Your task to perform on an android device: make emails show in primary in the gmail app Image 0: 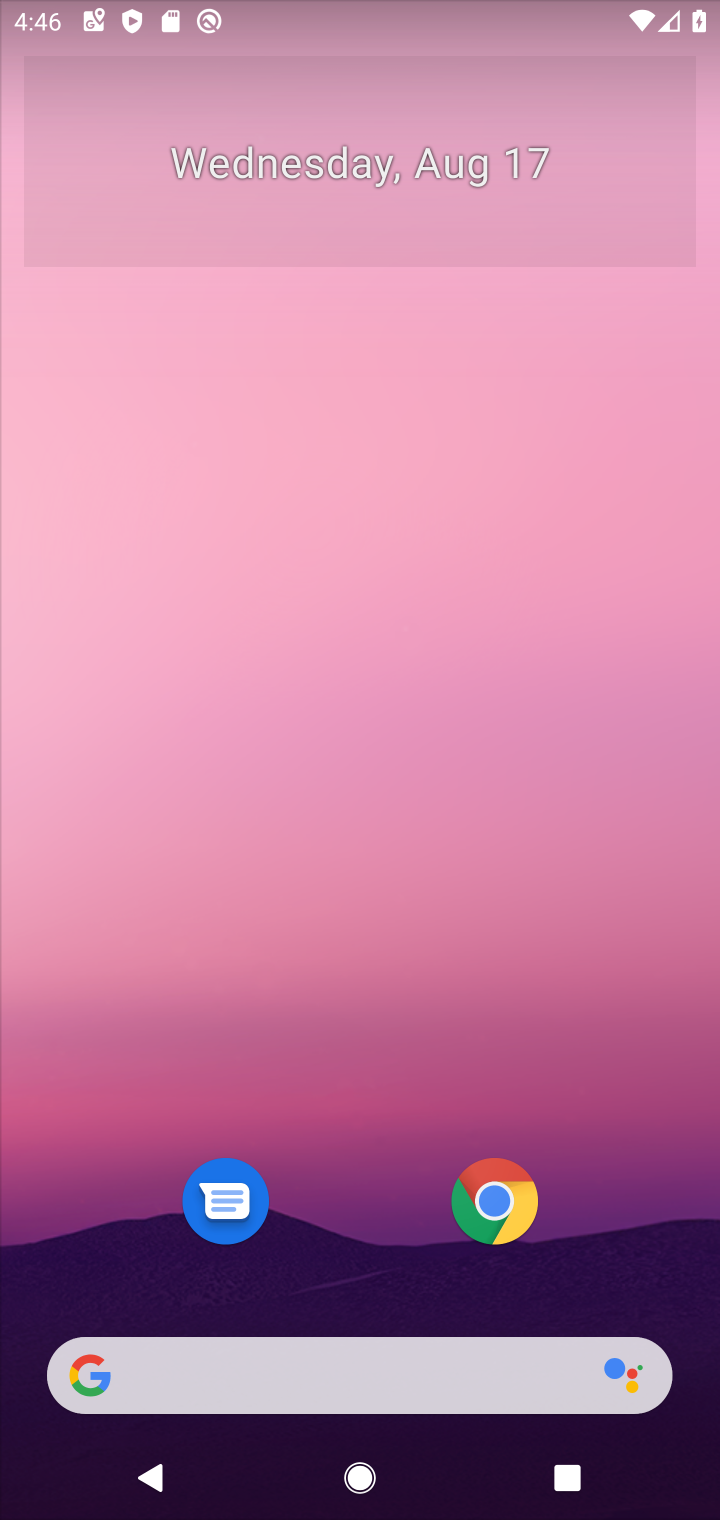
Step 0: click (453, 285)
Your task to perform on an android device: make emails show in primary in the gmail app Image 1: 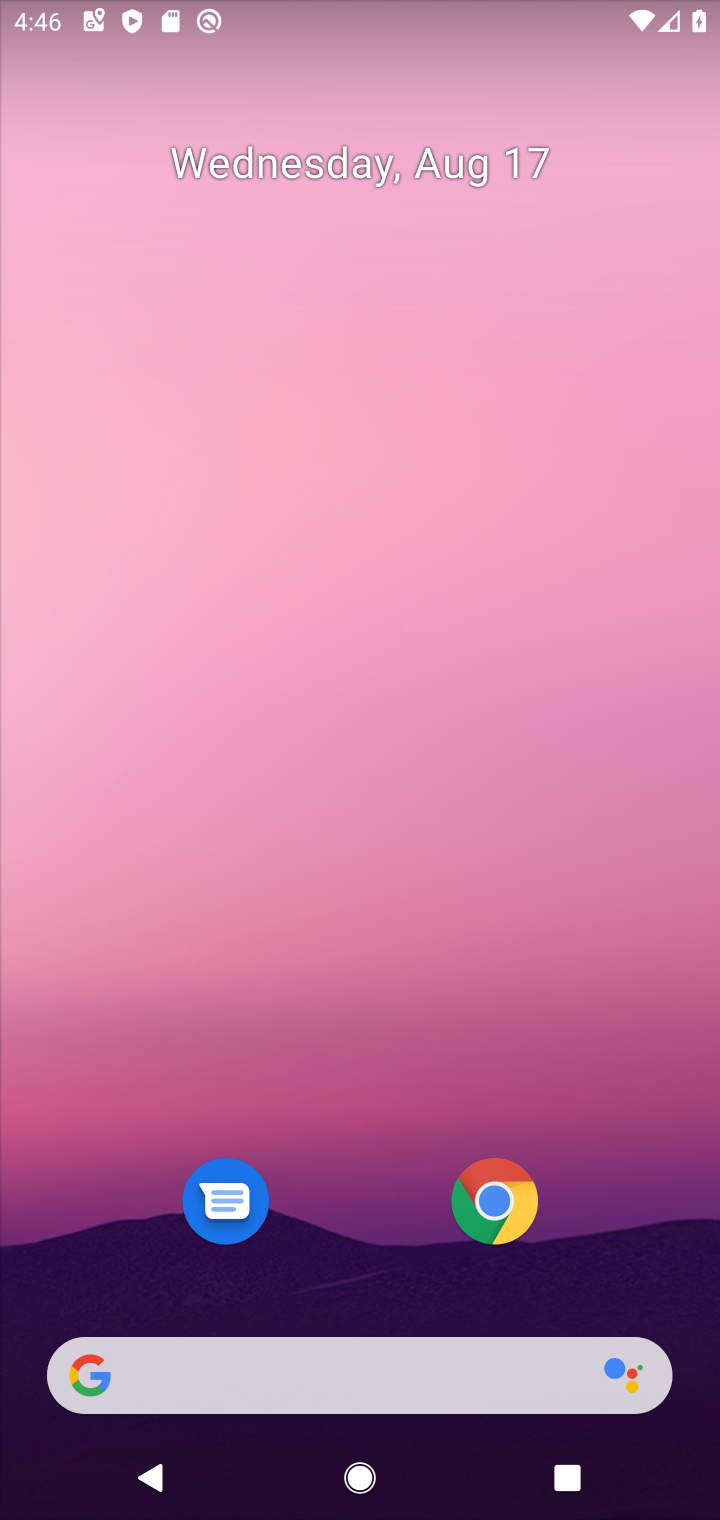
Step 1: drag from (418, 1125) to (147, 9)
Your task to perform on an android device: make emails show in primary in the gmail app Image 2: 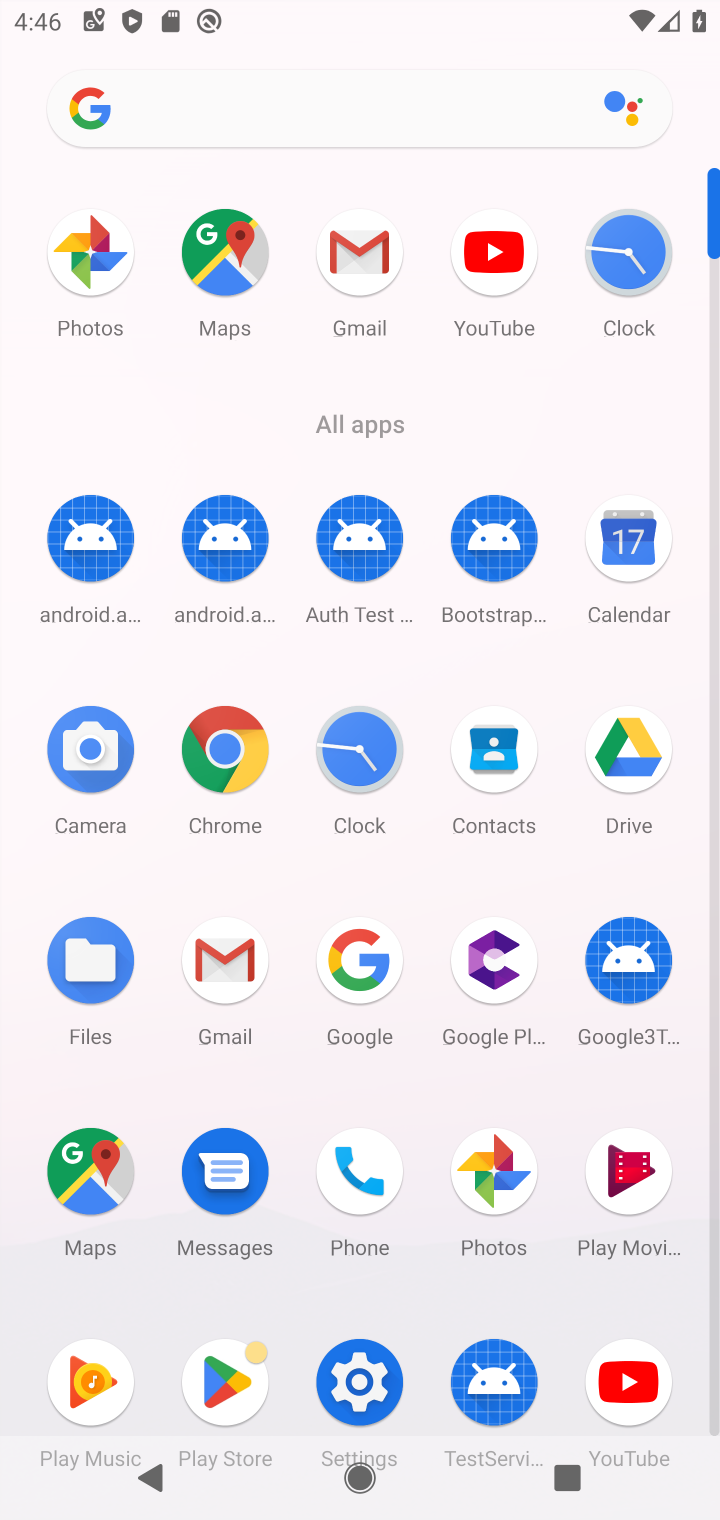
Step 2: click (347, 282)
Your task to perform on an android device: make emails show in primary in the gmail app Image 3: 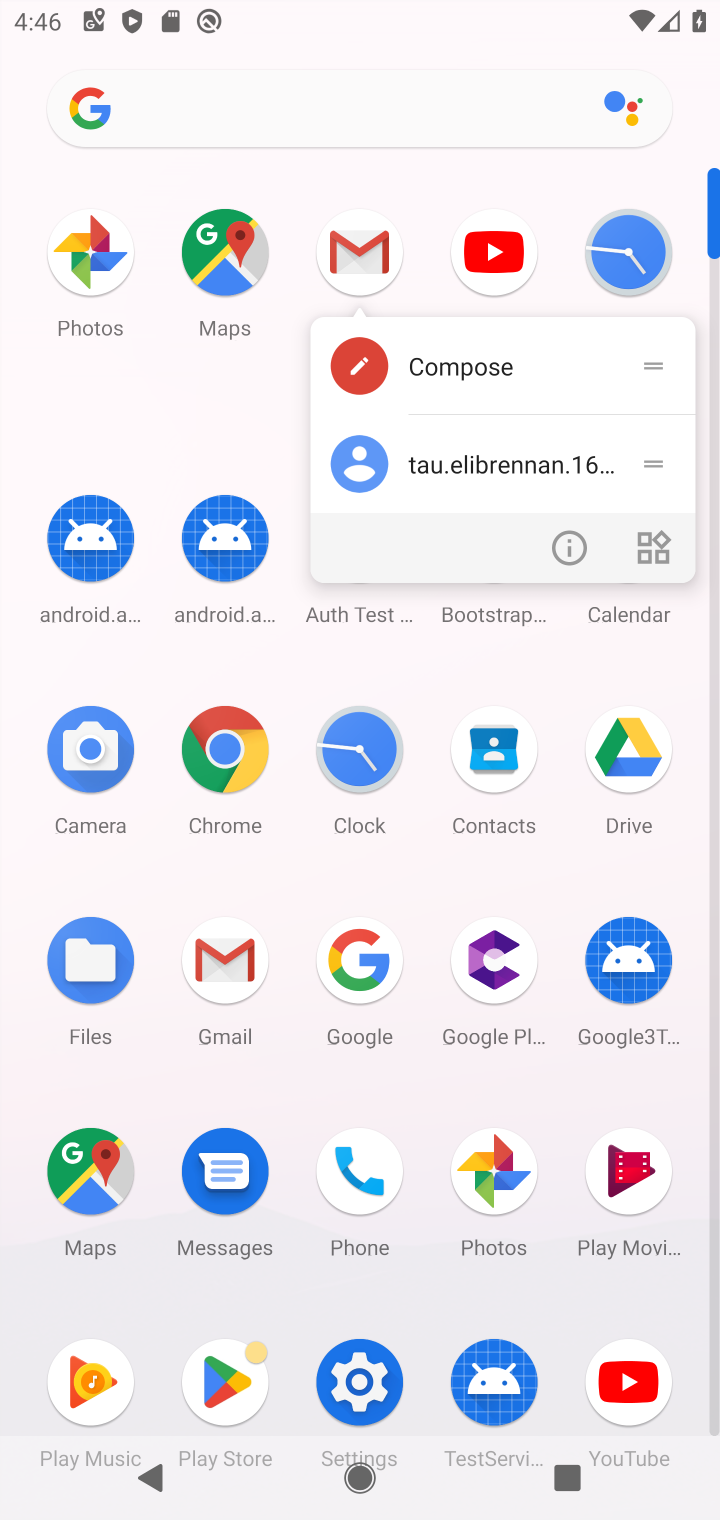
Step 3: click (369, 247)
Your task to perform on an android device: make emails show in primary in the gmail app Image 4: 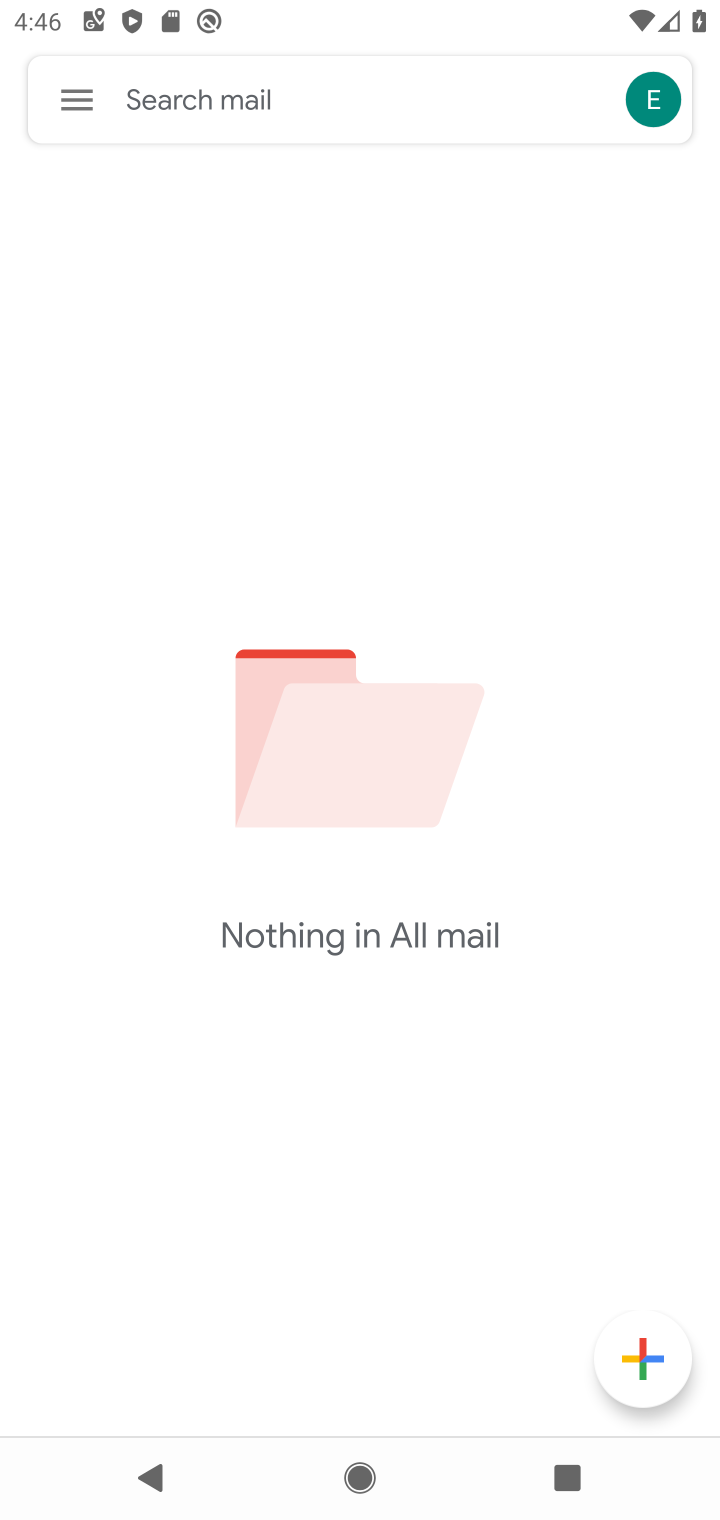
Step 4: click (73, 100)
Your task to perform on an android device: make emails show in primary in the gmail app Image 5: 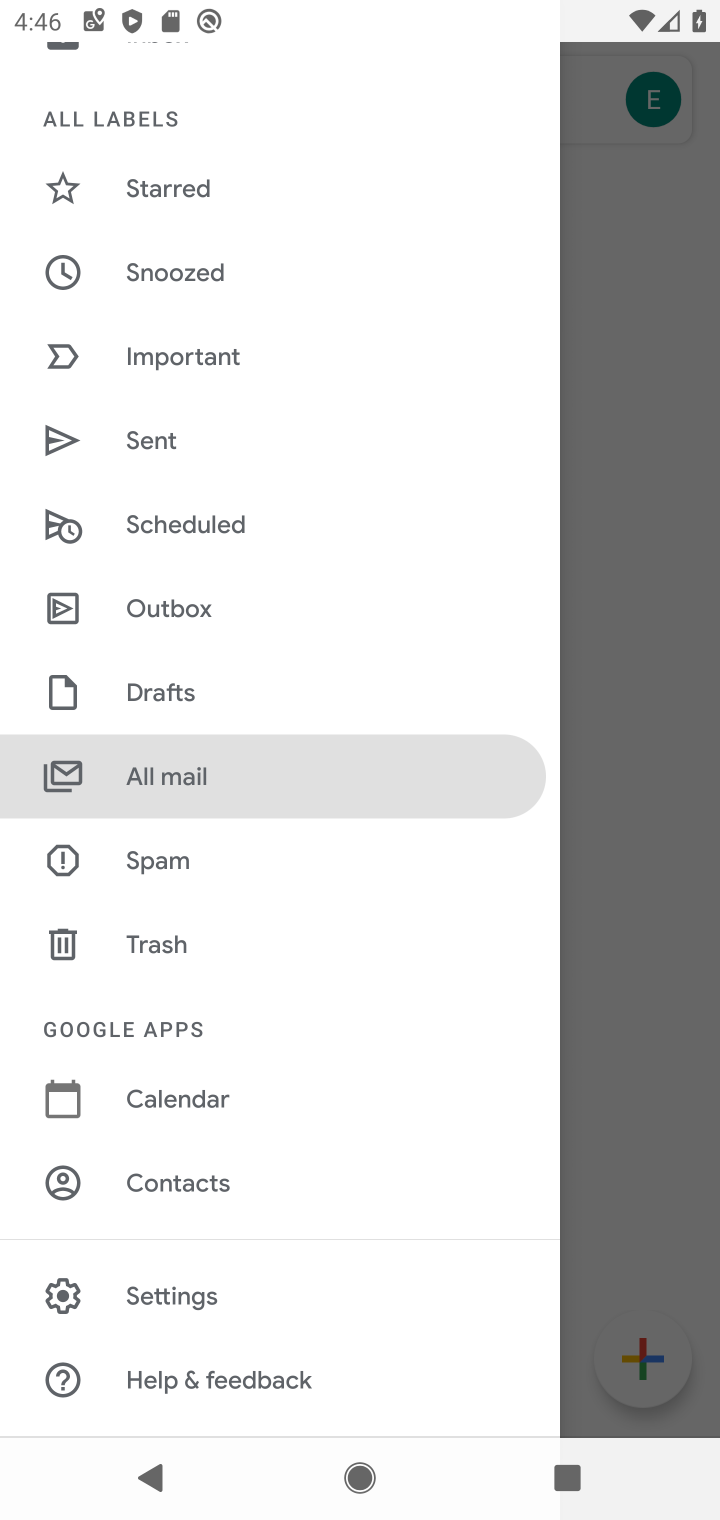
Step 5: click (179, 1308)
Your task to perform on an android device: make emails show in primary in the gmail app Image 6: 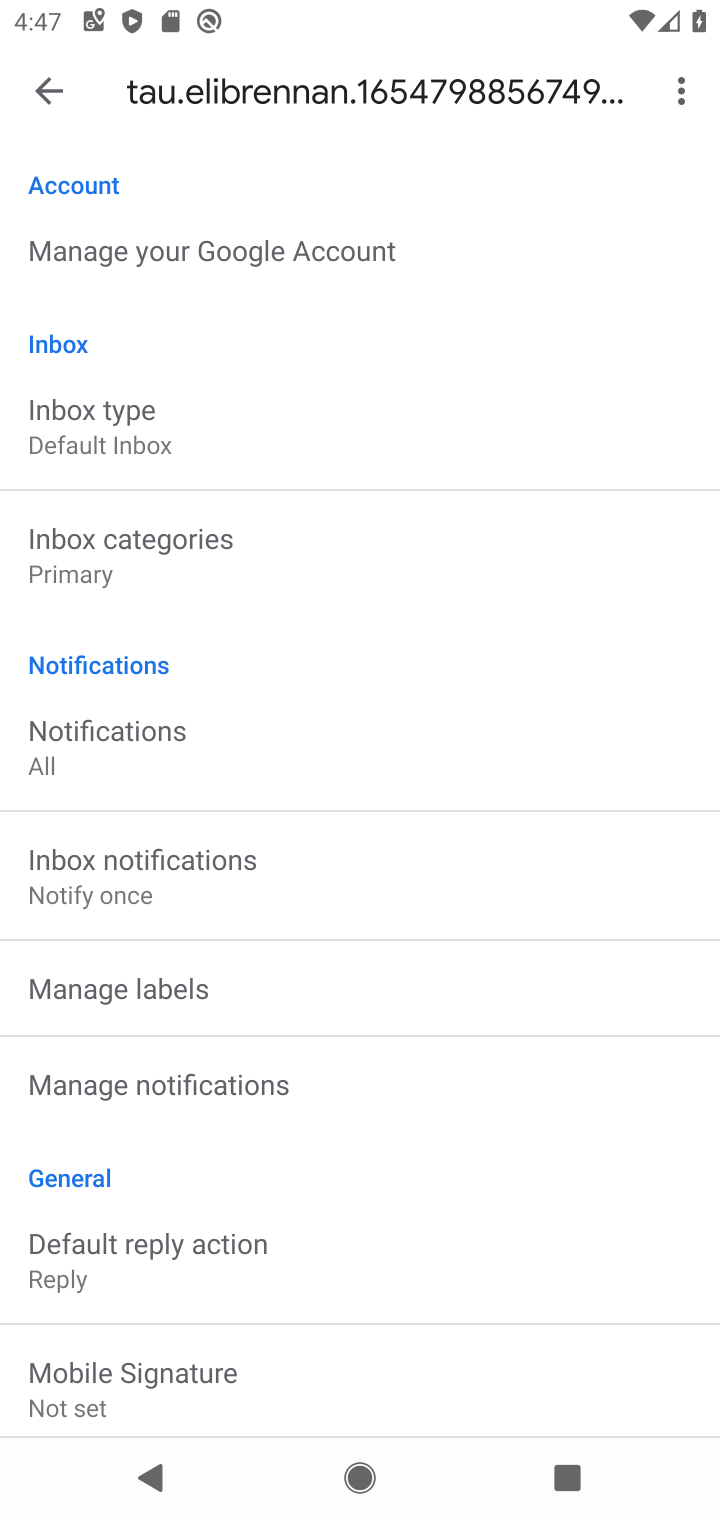
Step 6: task complete